Your task to perform on an android device: delete location history Image 0: 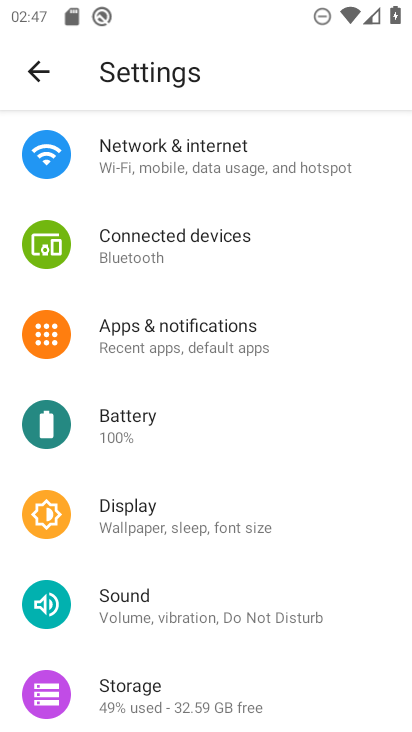
Step 0: drag from (116, 593) to (173, 218)
Your task to perform on an android device: delete location history Image 1: 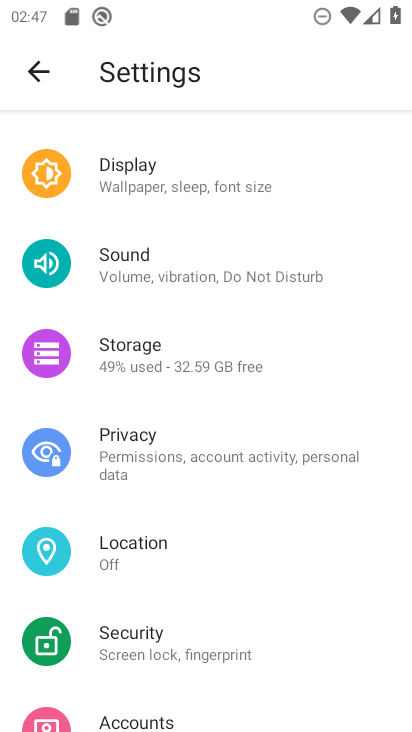
Step 1: press home button
Your task to perform on an android device: delete location history Image 2: 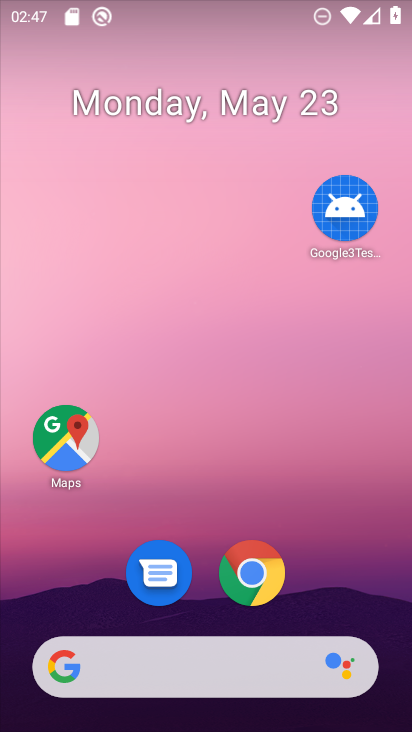
Step 2: click (61, 439)
Your task to perform on an android device: delete location history Image 3: 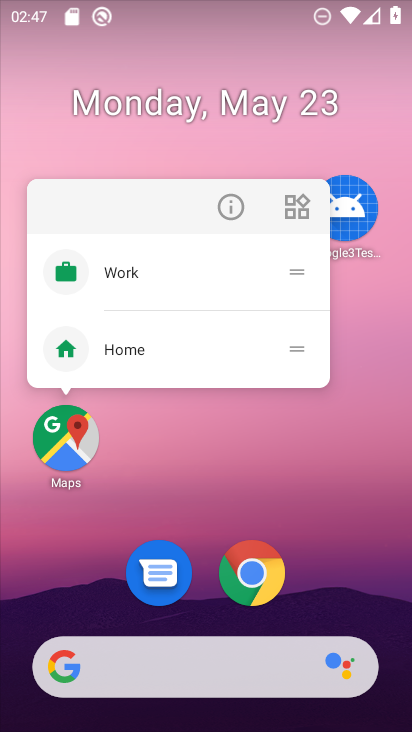
Step 3: click (255, 448)
Your task to perform on an android device: delete location history Image 4: 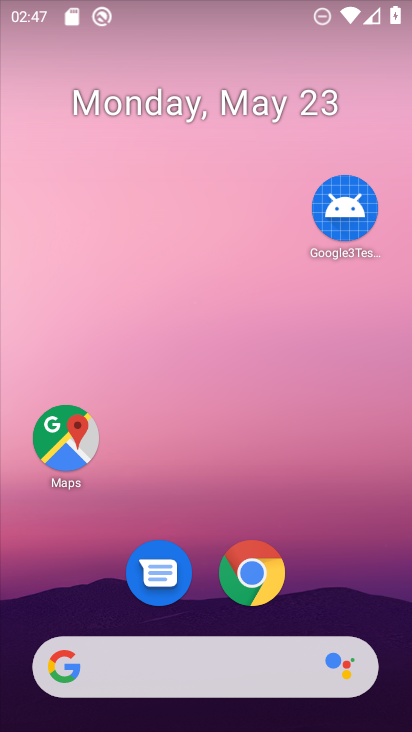
Step 4: drag from (348, 500) to (240, 12)
Your task to perform on an android device: delete location history Image 5: 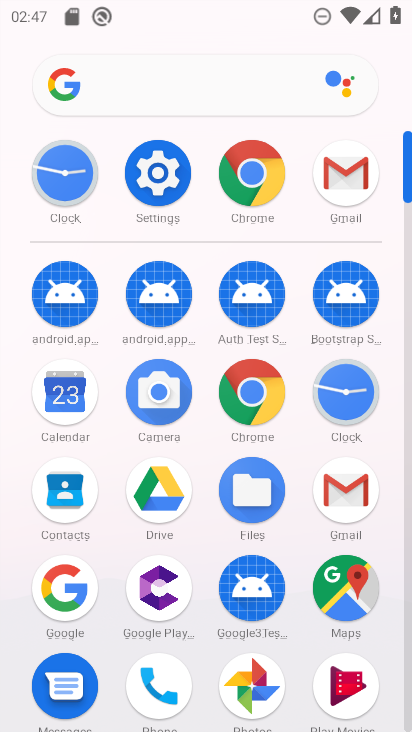
Step 5: click (348, 599)
Your task to perform on an android device: delete location history Image 6: 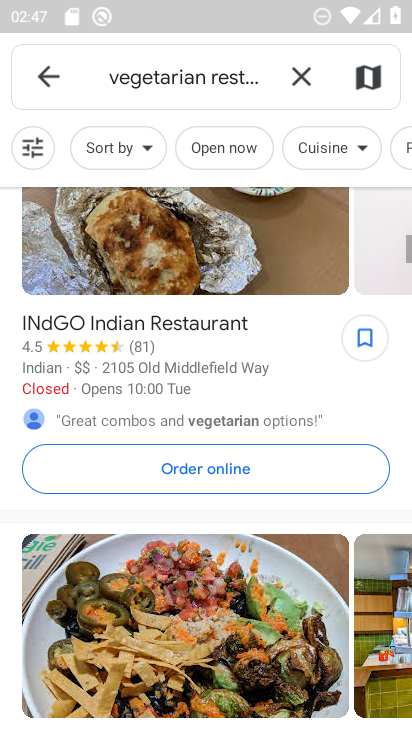
Step 6: click (50, 71)
Your task to perform on an android device: delete location history Image 7: 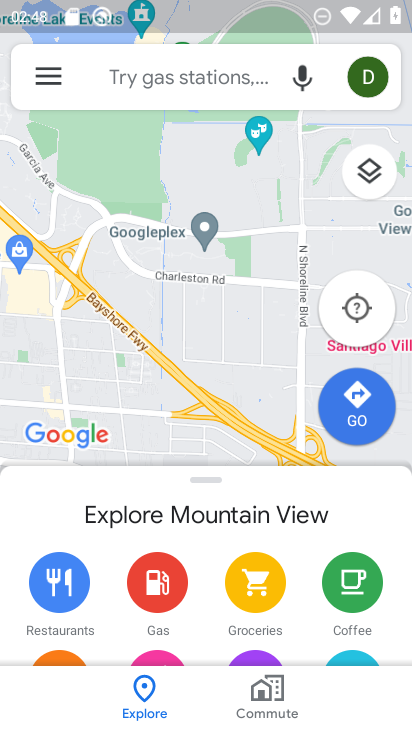
Step 7: click (40, 69)
Your task to perform on an android device: delete location history Image 8: 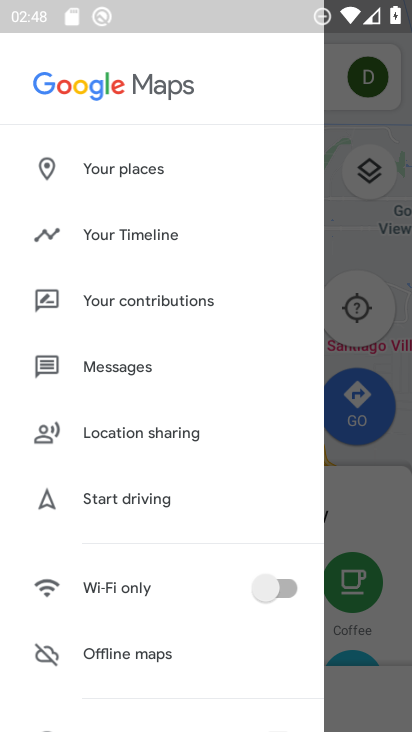
Step 8: drag from (129, 597) to (137, 158)
Your task to perform on an android device: delete location history Image 9: 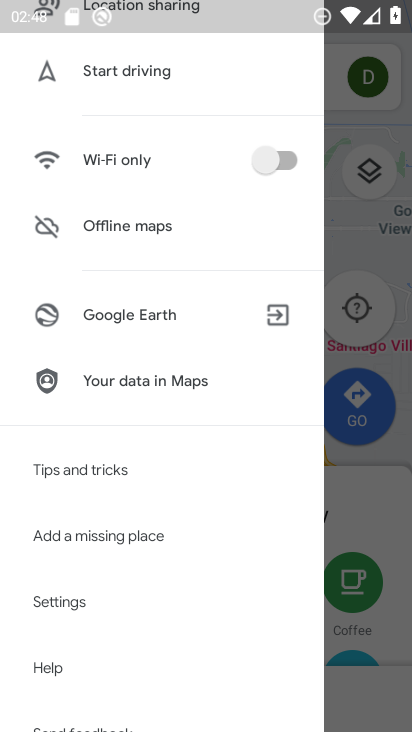
Step 9: click (97, 613)
Your task to perform on an android device: delete location history Image 10: 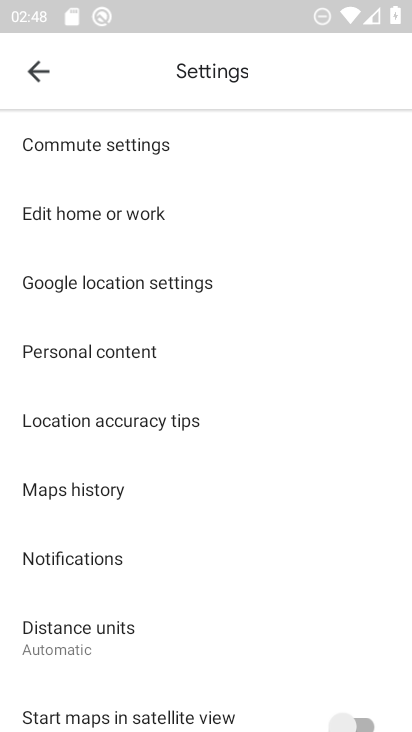
Step 10: drag from (109, 606) to (83, 194)
Your task to perform on an android device: delete location history Image 11: 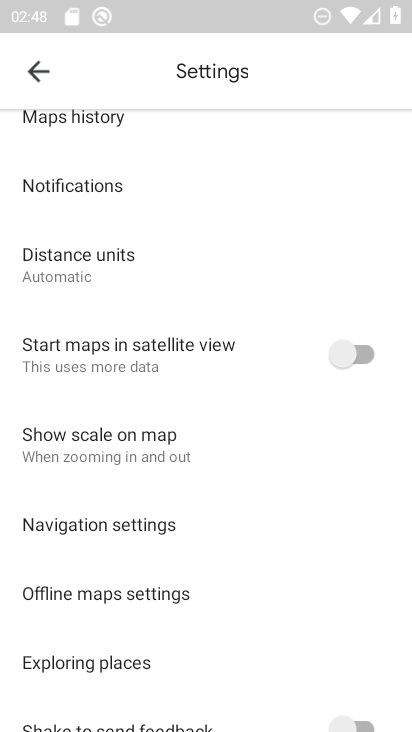
Step 11: drag from (243, 589) to (215, 187)
Your task to perform on an android device: delete location history Image 12: 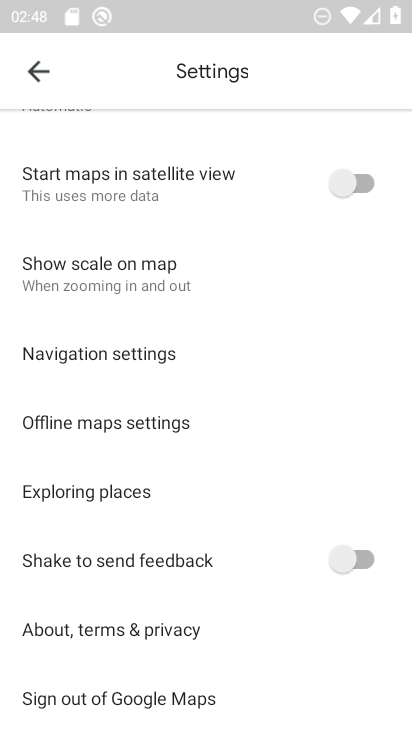
Step 12: drag from (174, 240) to (139, 605)
Your task to perform on an android device: delete location history Image 13: 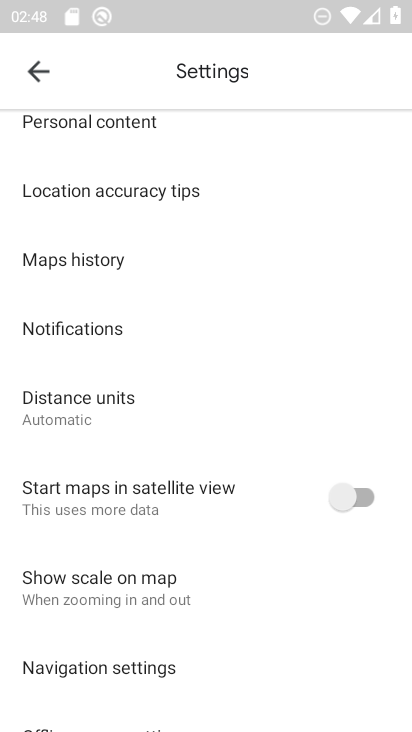
Step 13: click (113, 262)
Your task to perform on an android device: delete location history Image 14: 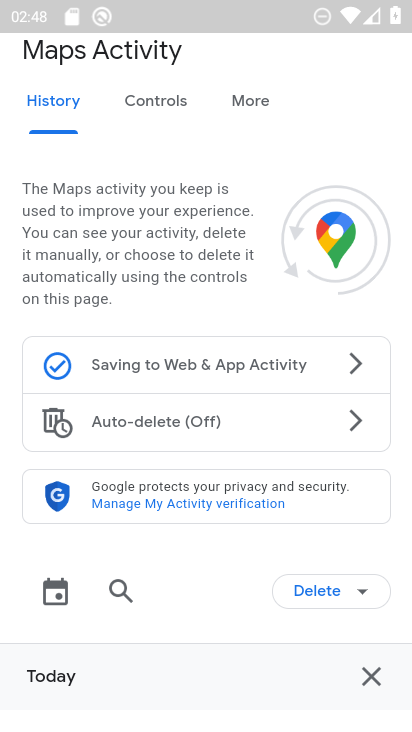
Step 14: click (324, 595)
Your task to perform on an android device: delete location history Image 15: 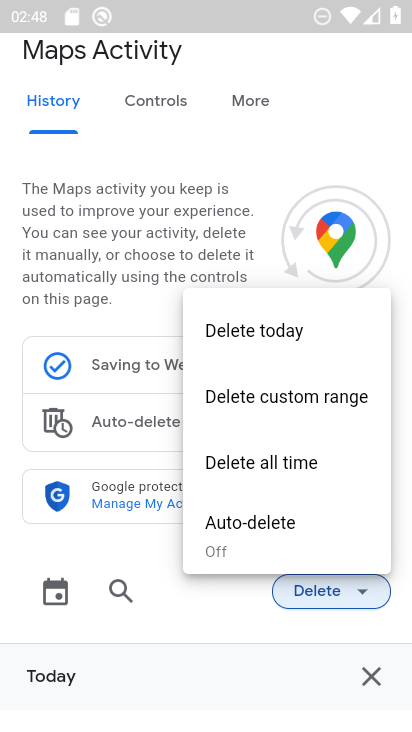
Step 15: click (283, 459)
Your task to perform on an android device: delete location history Image 16: 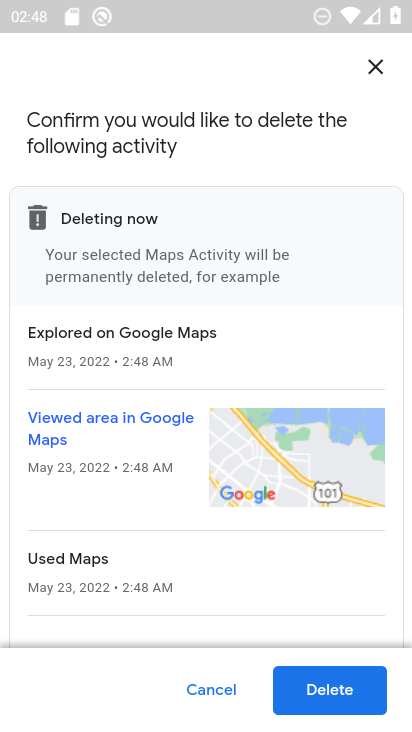
Step 16: click (357, 695)
Your task to perform on an android device: delete location history Image 17: 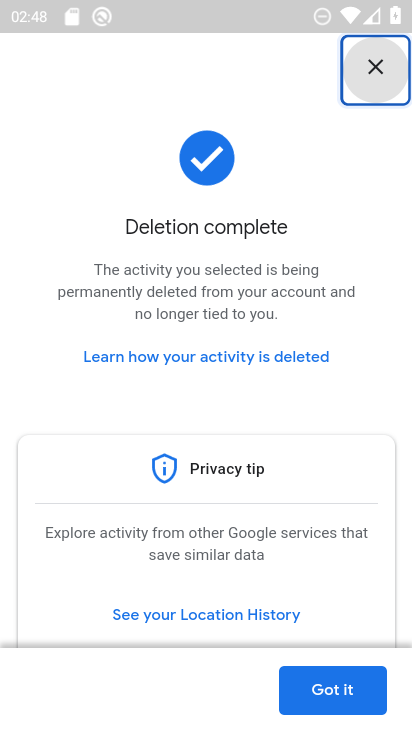
Step 17: click (354, 685)
Your task to perform on an android device: delete location history Image 18: 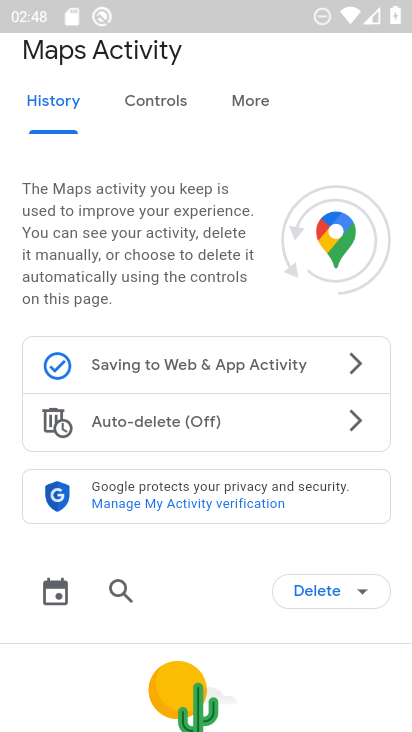
Step 18: task complete